Your task to perform on an android device: Open Google Chrome Image 0: 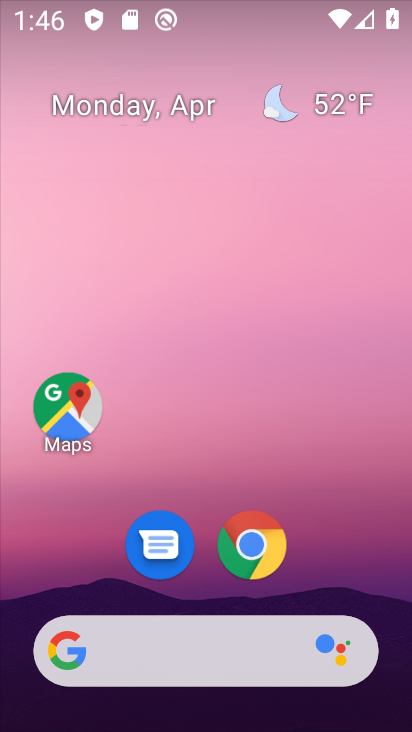
Step 0: click (256, 540)
Your task to perform on an android device: Open Google Chrome Image 1: 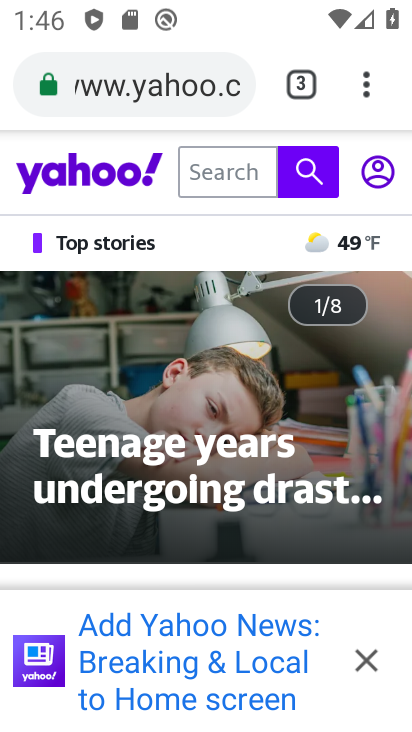
Step 1: task complete